Your task to perform on an android device: change keyboard looks Image 0: 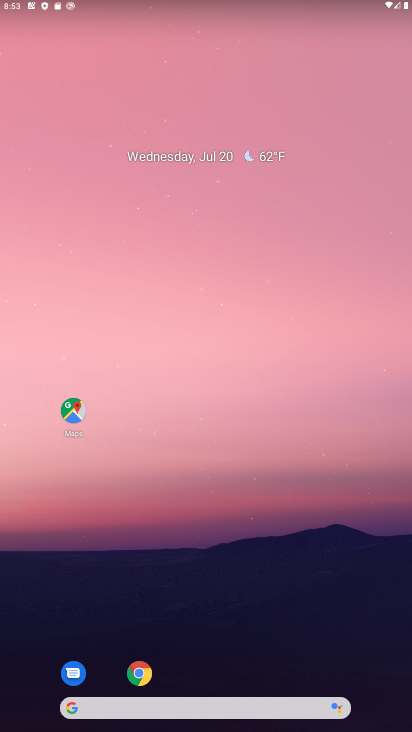
Step 0: click (279, 478)
Your task to perform on an android device: change keyboard looks Image 1: 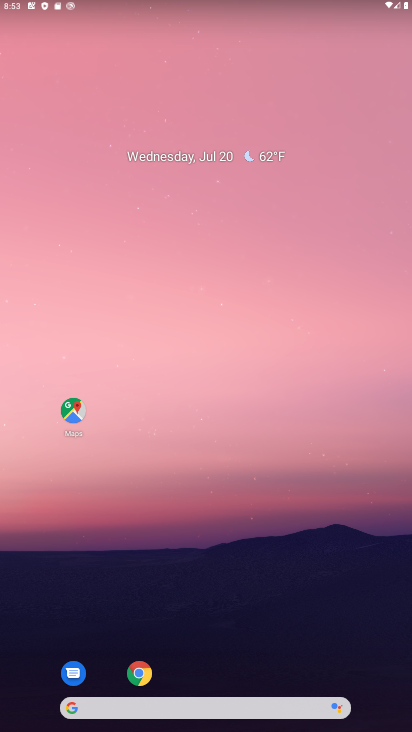
Step 1: drag from (394, 709) to (340, 32)
Your task to perform on an android device: change keyboard looks Image 2: 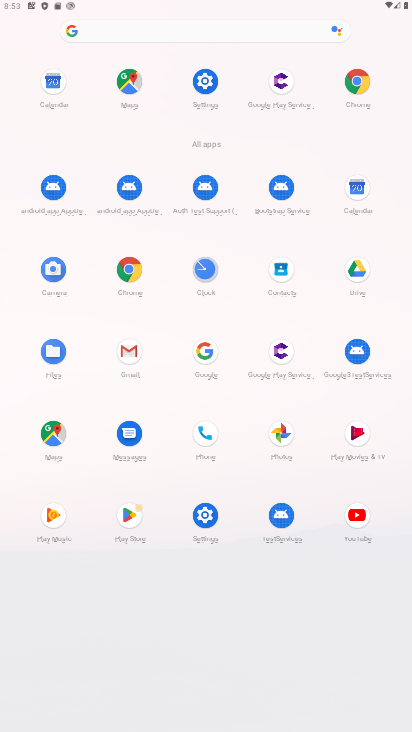
Step 2: click (197, 78)
Your task to perform on an android device: change keyboard looks Image 3: 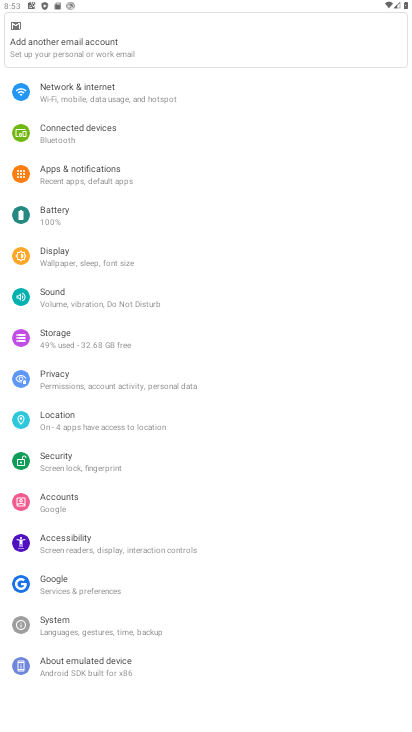
Step 3: click (60, 618)
Your task to perform on an android device: change keyboard looks Image 4: 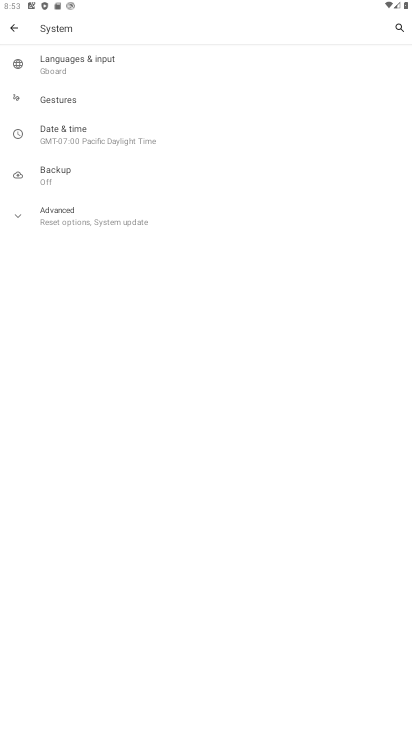
Step 4: click (54, 56)
Your task to perform on an android device: change keyboard looks Image 5: 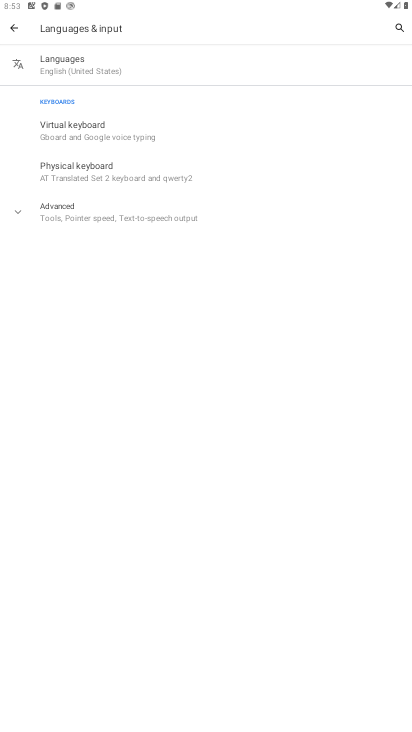
Step 5: click (50, 118)
Your task to perform on an android device: change keyboard looks Image 6: 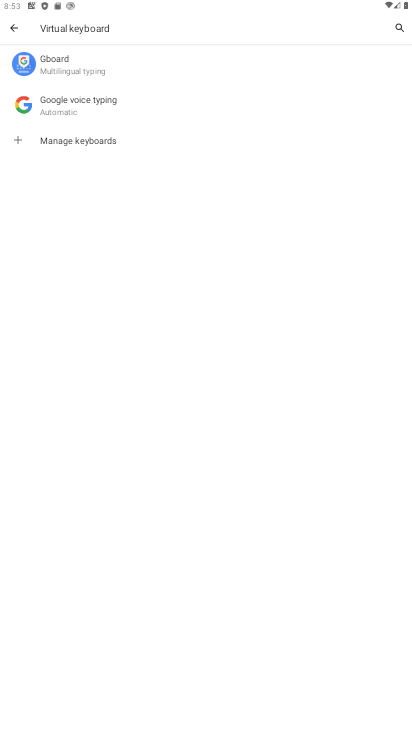
Step 6: click (54, 60)
Your task to perform on an android device: change keyboard looks Image 7: 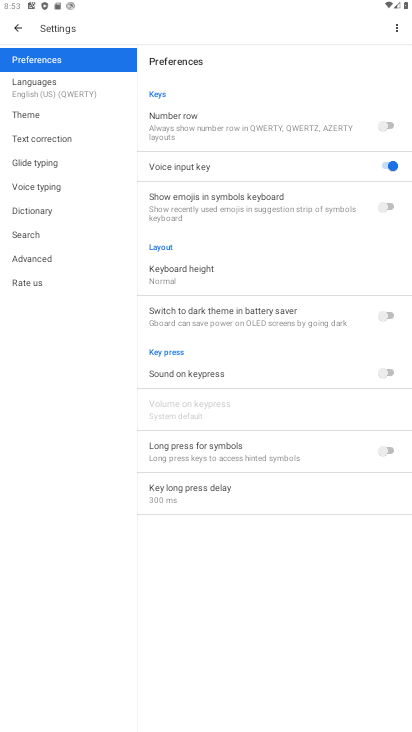
Step 7: click (22, 114)
Your task to perform on an android device: change keyboard looks Image 8: 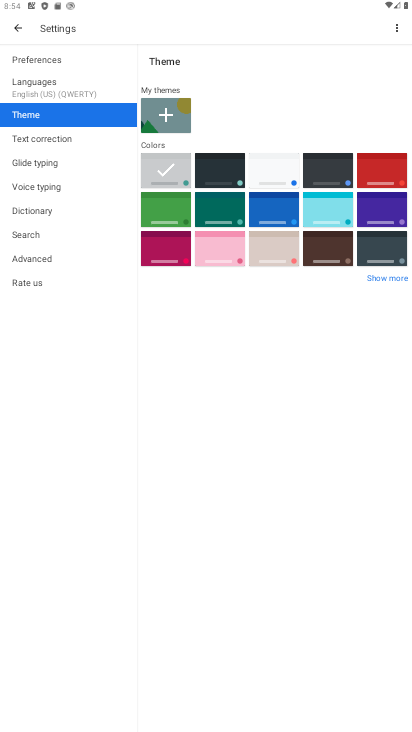
Step 8: click (315, 248)
Your task to perform on an android device: change keyboard looks Image 9: 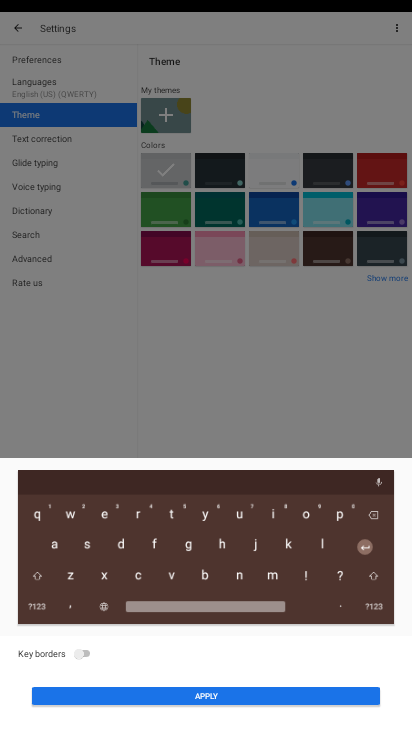
Step 9: click (318, 209)
Your task to perform on an android device: change keyboard looks Image 10: 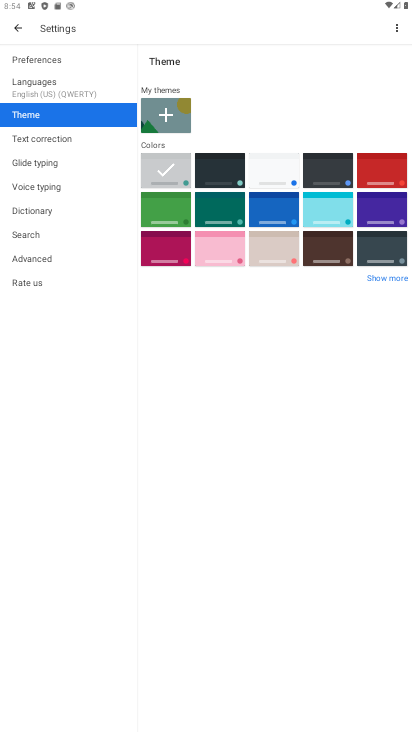
Step 10: click (323, 247)
Your task to perform on an android device: change keyboard looks Image 11: 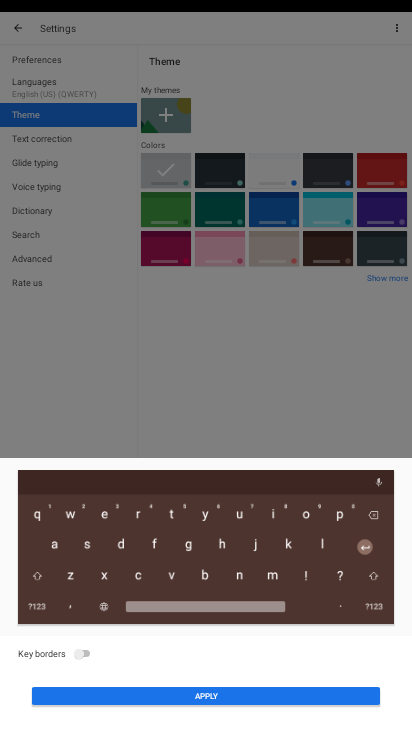
Step 11: click (259, 696)
Your task to perform on an android device: change keyboard looks Image 12: 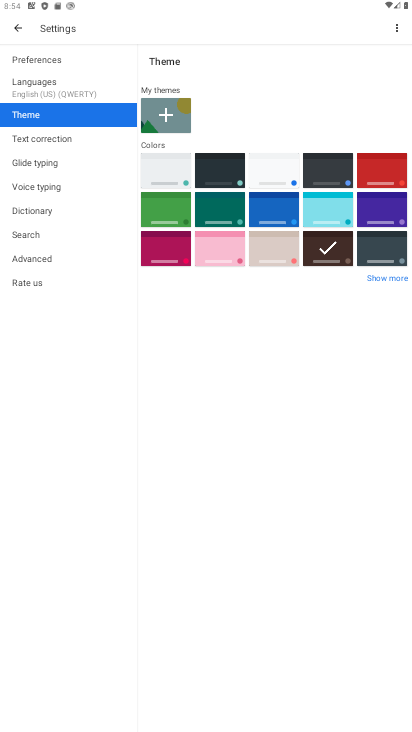
Step 12: task complete